Your task to perform on an android device: turn off translation in the chrome app Image 0: 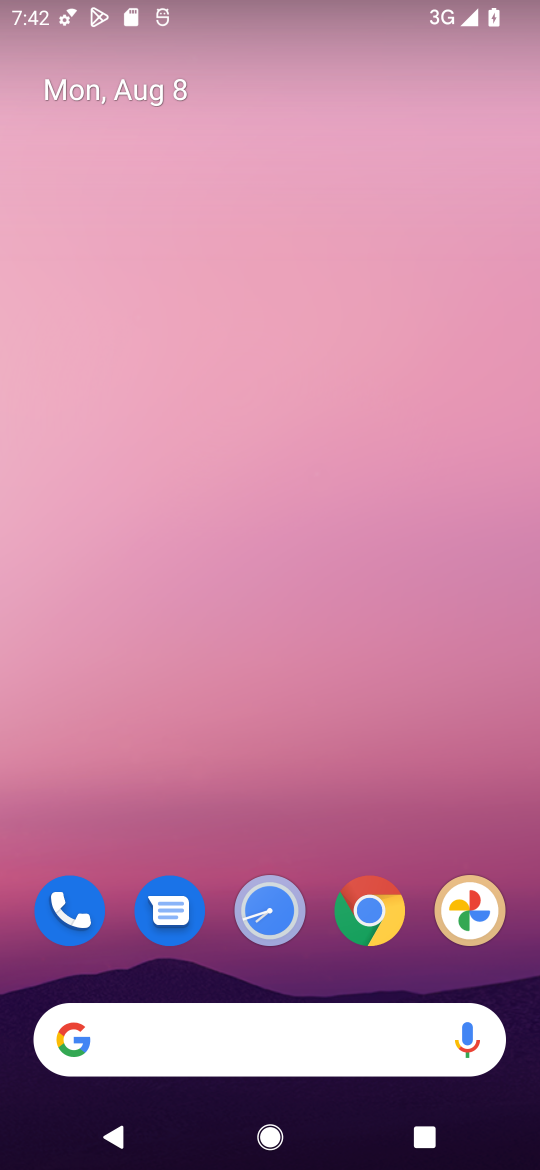
Step 0: click (378, 906)
Your task to perform on an android device: turn off translation in the chrome app Image 1: 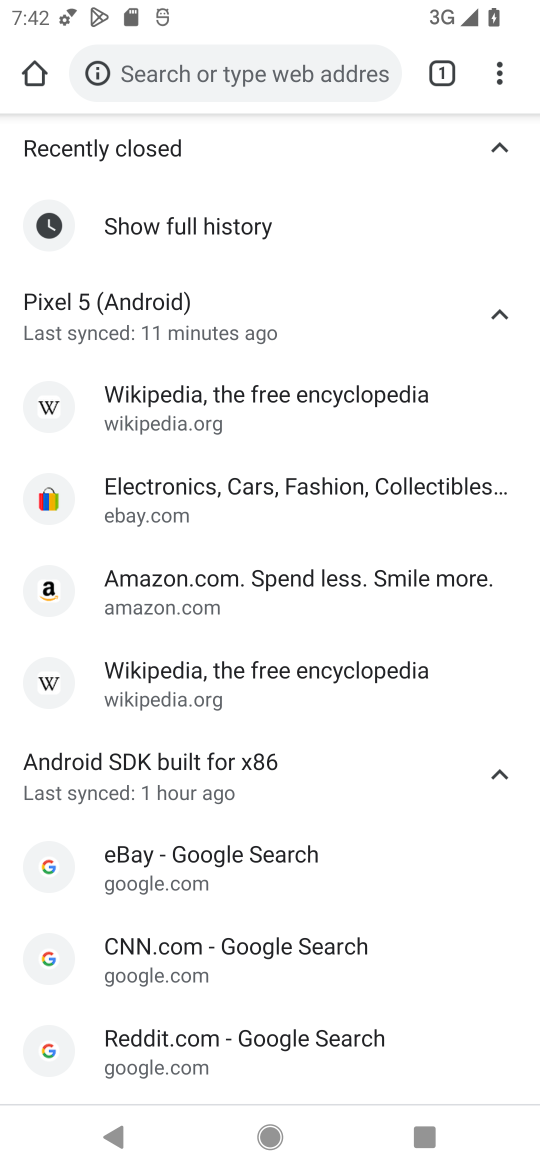
Step 1: click (504, 80)
Your task to perform on an android device: turn off translation in the chrome app Image 2: 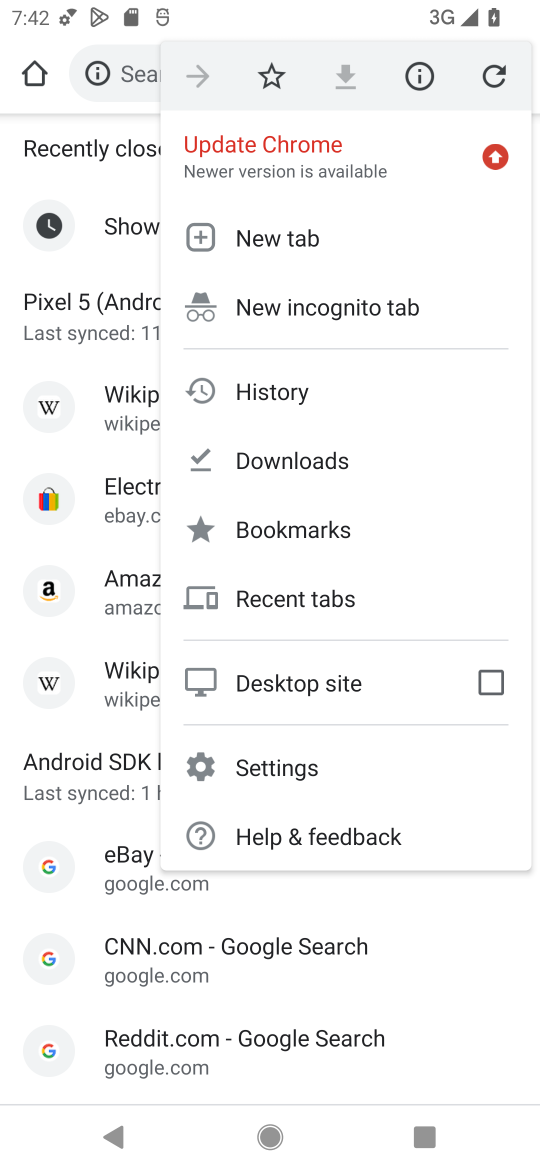
Step 2: click (289, 777)
Your task to perform on an android device: turn off translation in the chrome app Image 3: 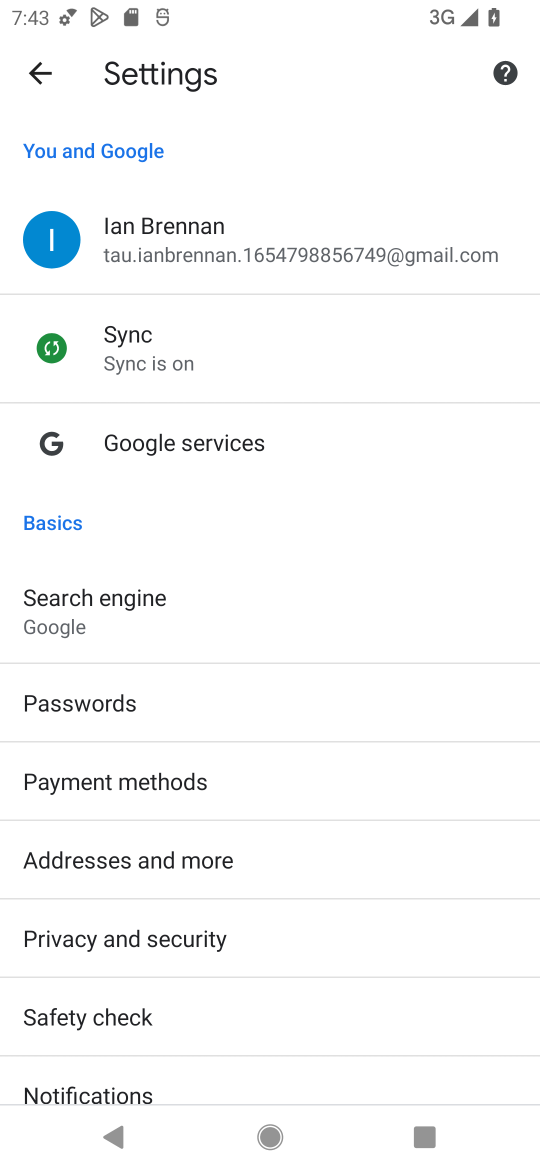
Step 3: drag from (344, 666) to (244, 62)
Your task to perform on an android device: turn off translation in the chrome app Image 4: 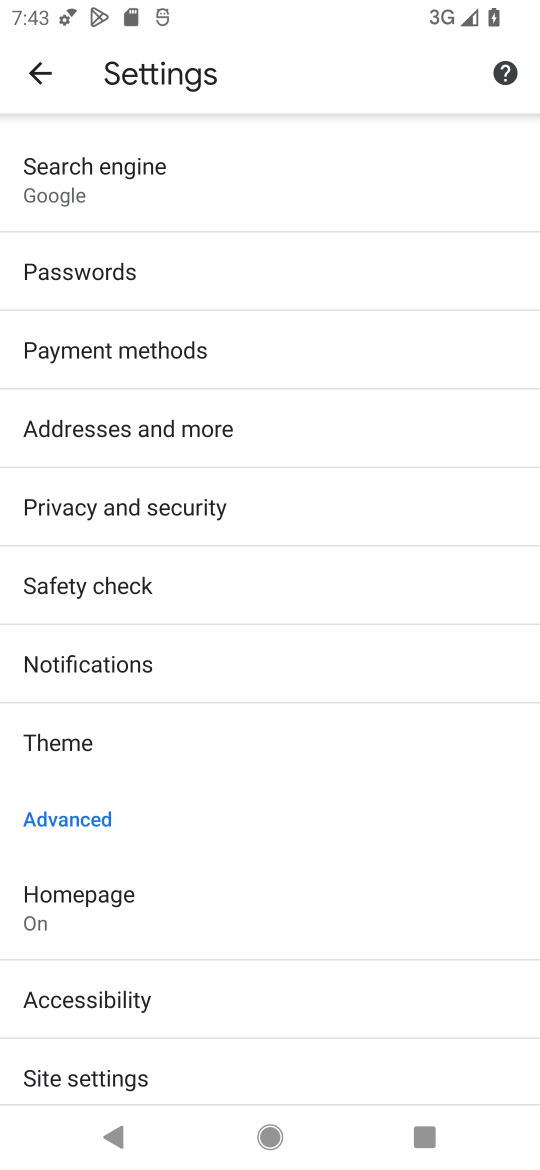
Step 4: drag from (304, 802) to (334, 516)
Your task to perform on an android device: turn off translation in the chrome app Image 5: 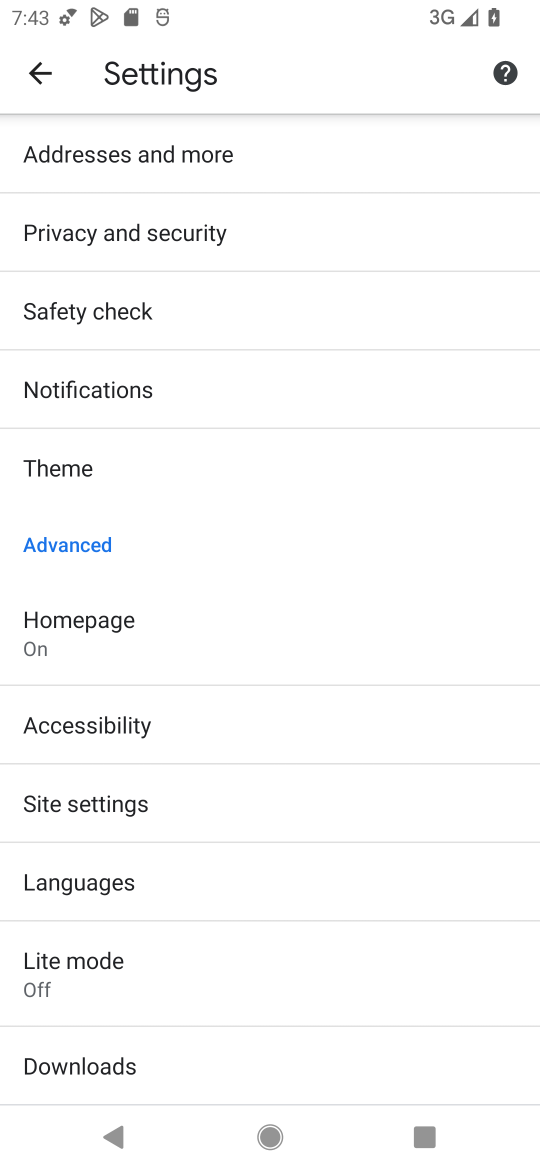
Step 5: click (126, 873)
Your task to perform on an android device: turn off translation in the chrome app Image 6: 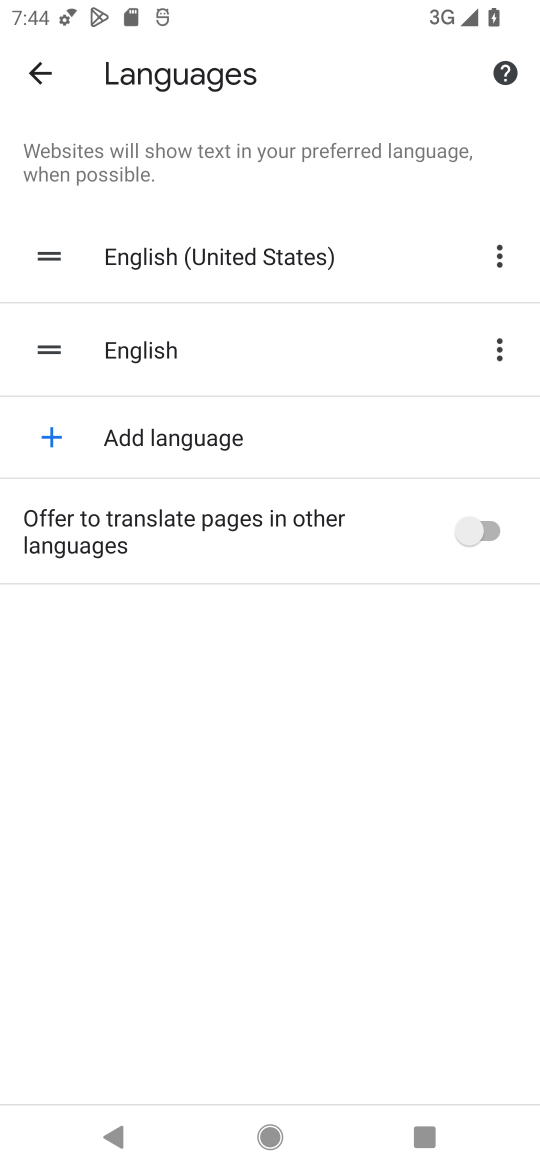
Step 6: task complete